Your task to perform on an android device: Go to settings Image 0: 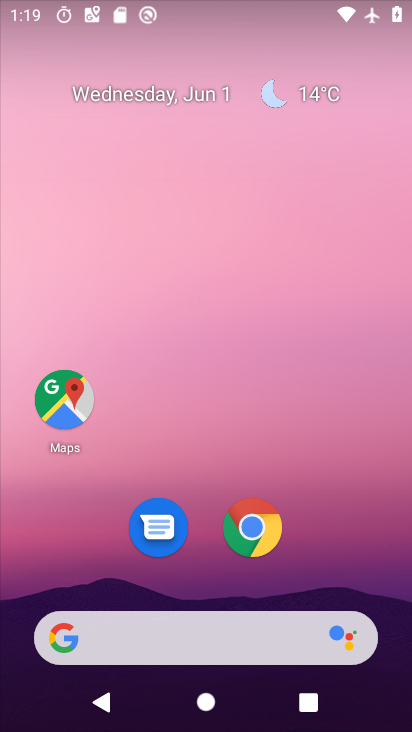
Step 0: drag from (368, 520) to (356, 13)
Your task to perform on an android device: Go to settings Image 1: 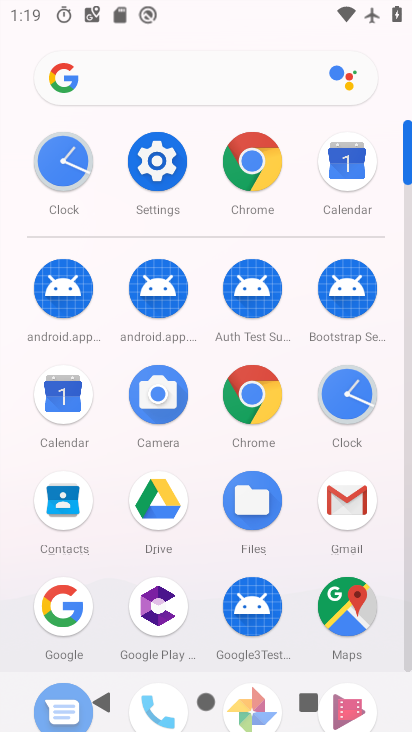
Step 1: click (163, 165)
Your task to perform on an android device: Go to settings Image 2: 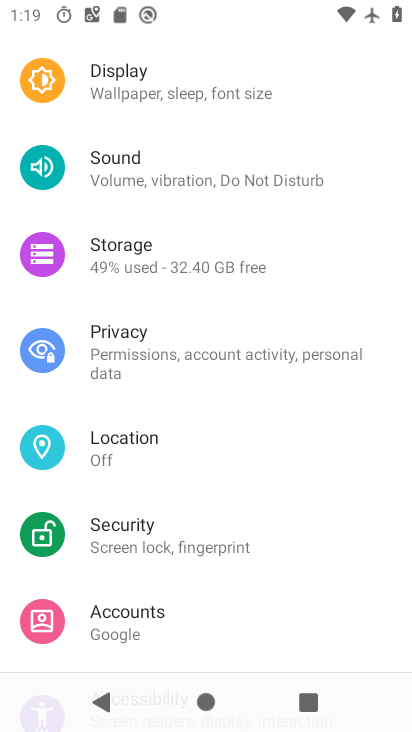
Step 2: task complete